Your task to perform on an android device: Go to display settings Image 0: 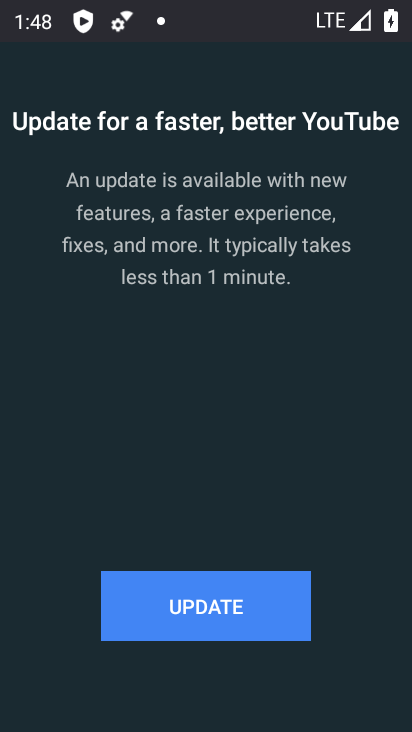
Step 0: press home button
Your task to perform on an android device: Go to display settings Image 1: 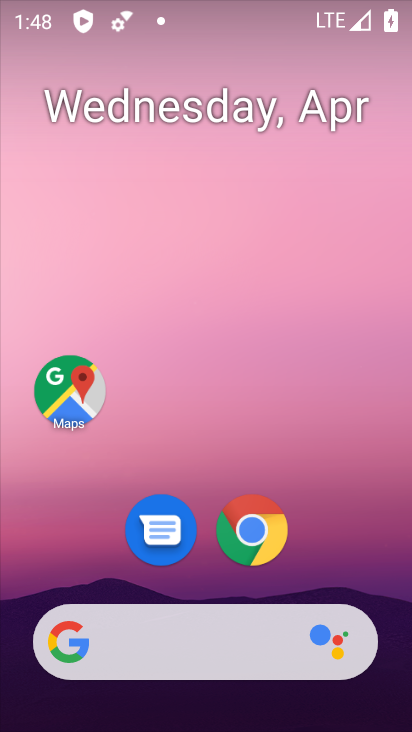
Step 1: drag from (369, 502) to (299, 80)
Your task to perform on an android device: Go to display settings Image 2: 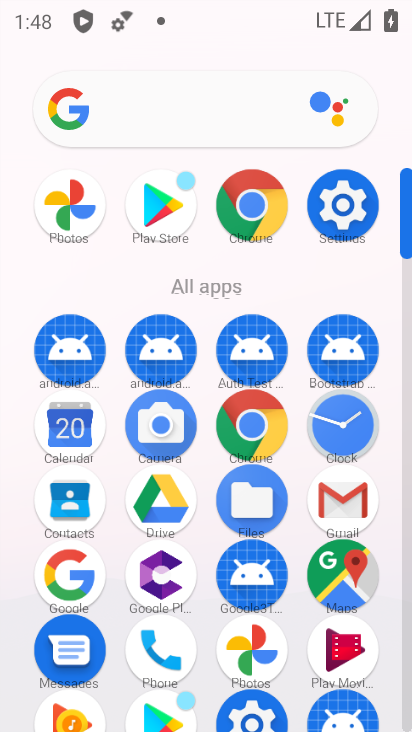
Step 2: click (342, 213)
Your task to perform on an android device: Go to display settings Image 3: 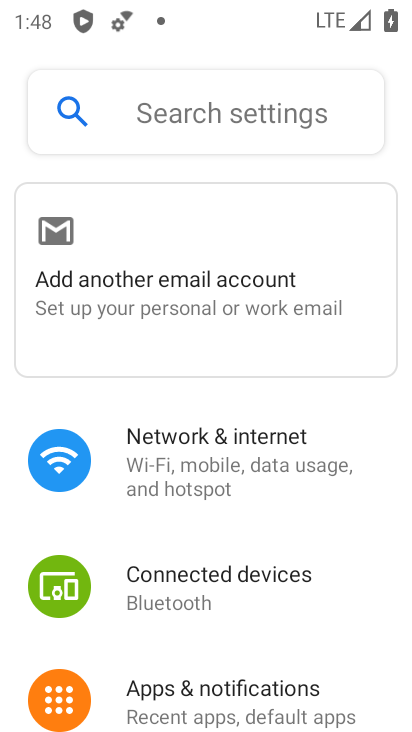
Step 3: drag from (304, 583) to (297, 274)
Your task to perform on an android device: Go to display settings Image 4: 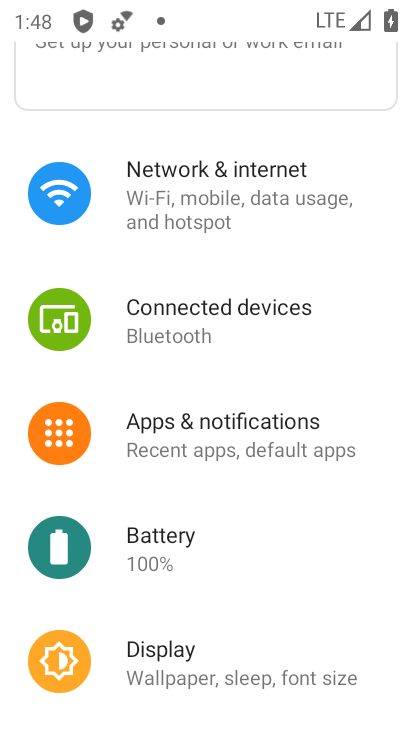
Step 4: drag from (201, 573) to (254, 361)
Your task to perform on an android device: Go to display settings Image 5: 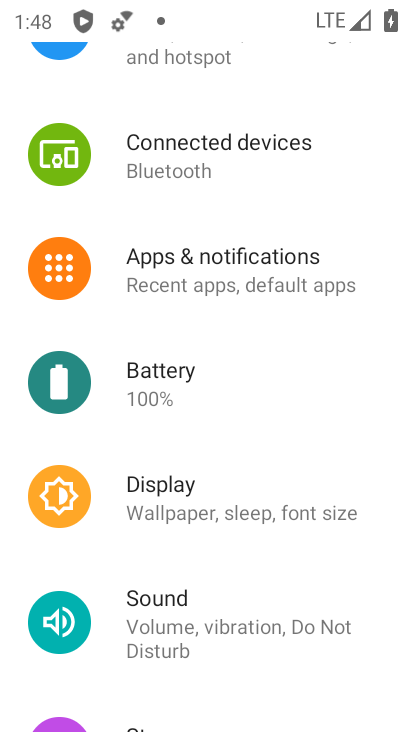
Step 5: click (167, 485)
Your task to perform on an android device: Go to display settings Image 6: 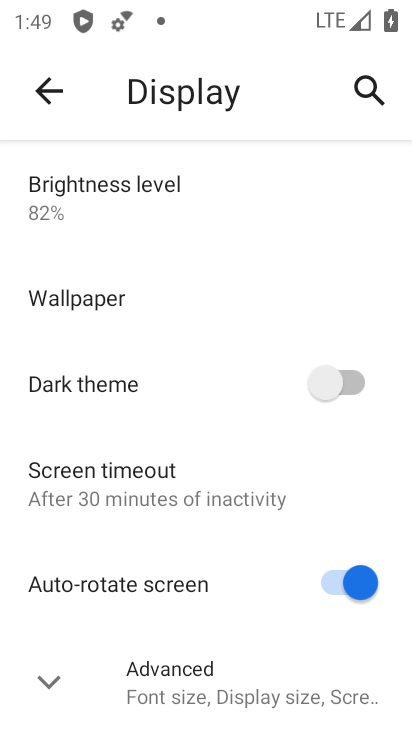
Step 6: task complete